Your task to perform on an android device: Open Reddit.com Image 0: 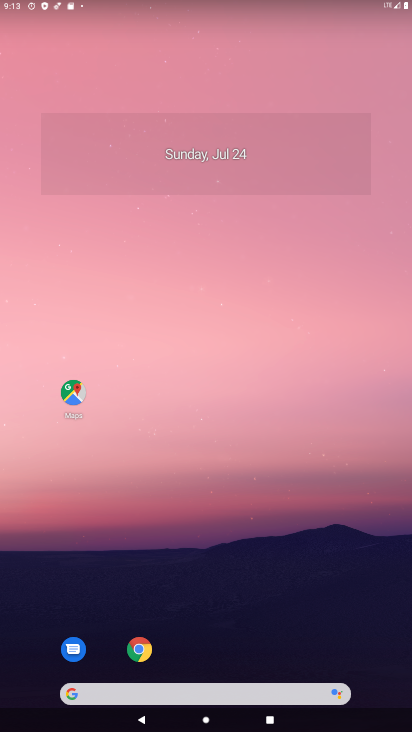
Step 0: click (170, 695)
Your task to perform on an android device: Open Reddit.com Image 1: 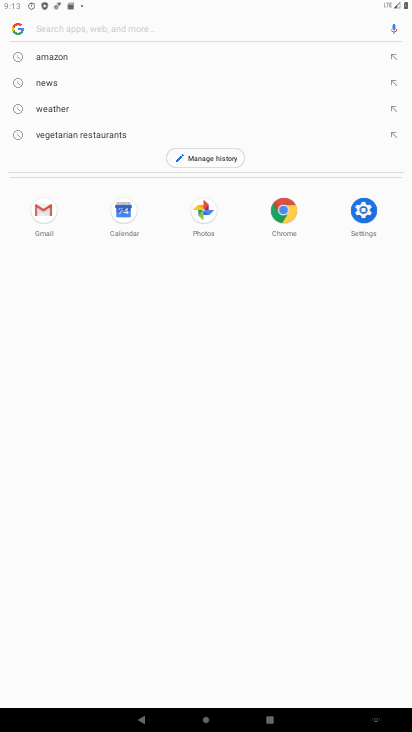
Step 1: type "Reddit.com"
Your task to perform on an android device: Open Reddit.com Image 2: 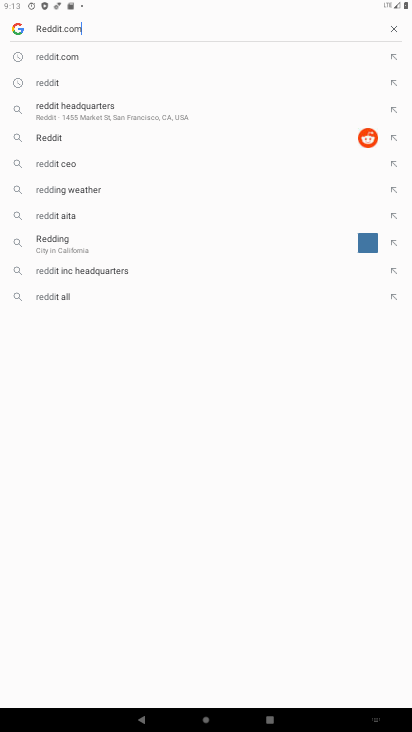
Step 2: type ""
Your task to perform on an android device: Open Reddit.com Image 3: 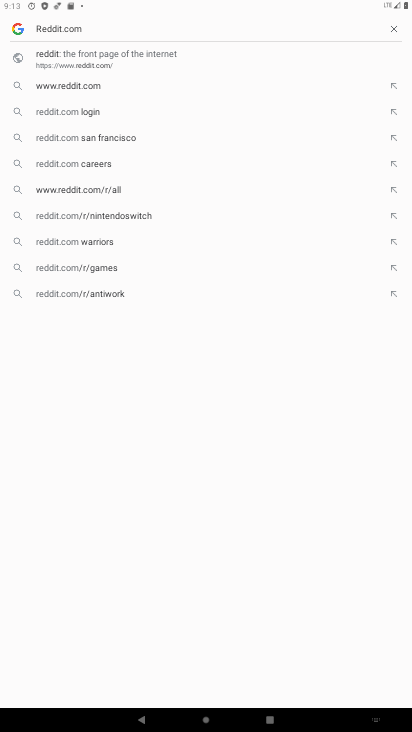
Step 3: click (48, 88)
Your task to perform on an android device: Open Reddit.com Image 4: 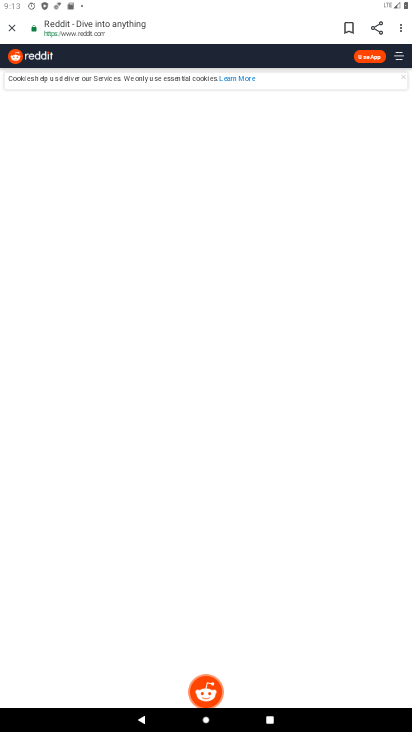
Step 4: task complete